Your task to perform on an android device: Show me popular videos on Youtube Image 0: 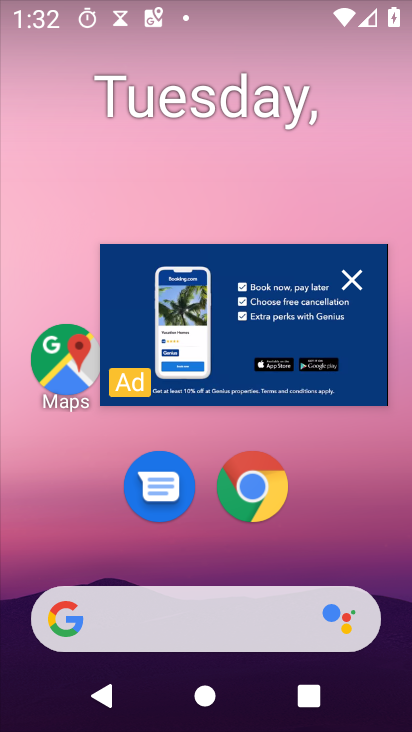
Step 0: click (351, 285)
Your task to perform on an android device: Show me popular videos on Youtube Image 1: 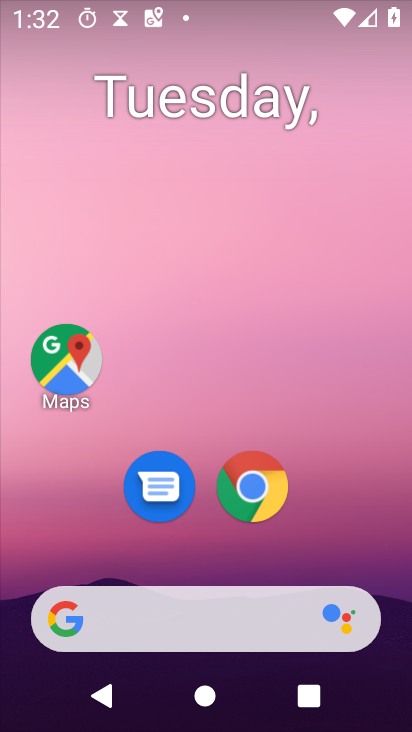
Step 1: drag from (362, 541) to (317, 161)
Your task to perform on an android device: Show me popular videos on Youtube Image 2: 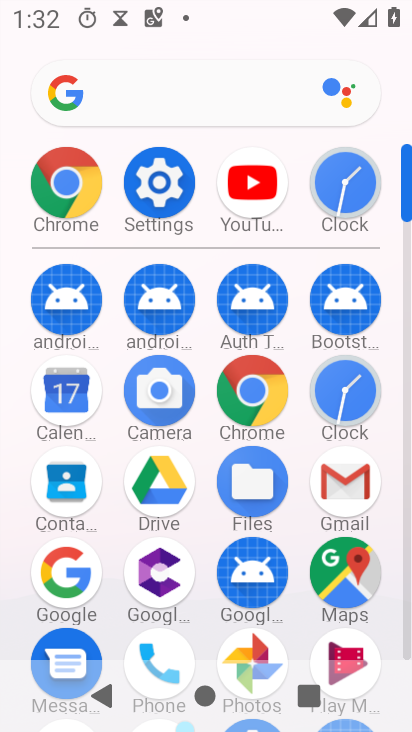
Step 2: click (251, 196)
Your task to perform on an android device: Show me popular videos on Youtube Image 3: 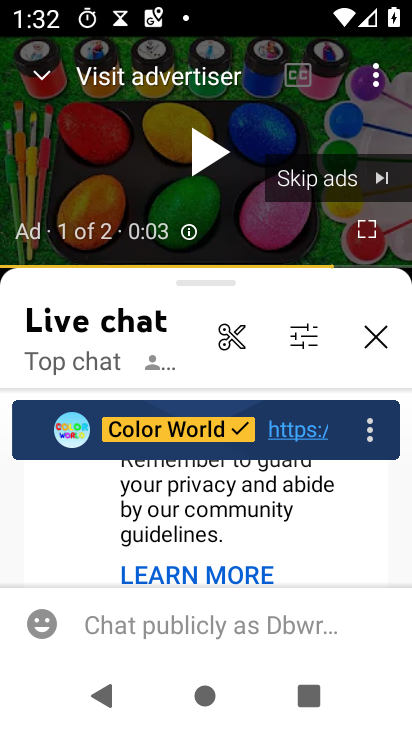
Step 3: click (97, 688)
Your task to perform on an android device: Show me popular videos on Youtube Image 4: 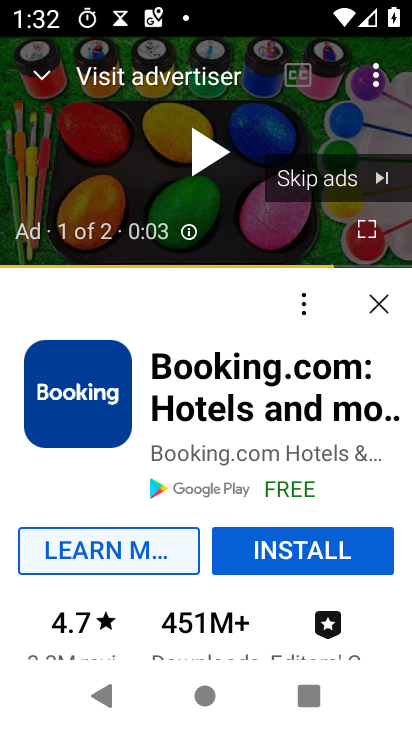
Step 4: press back button
Your task to perform on an android device: Show me popular videos on Youtube Image 5: 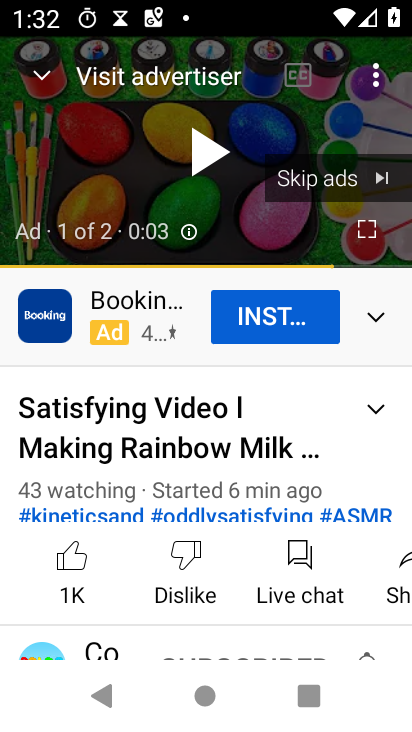
Step 5: press back button
Your task to perform on an android device: Show me popular videos on Youtube Image 6: 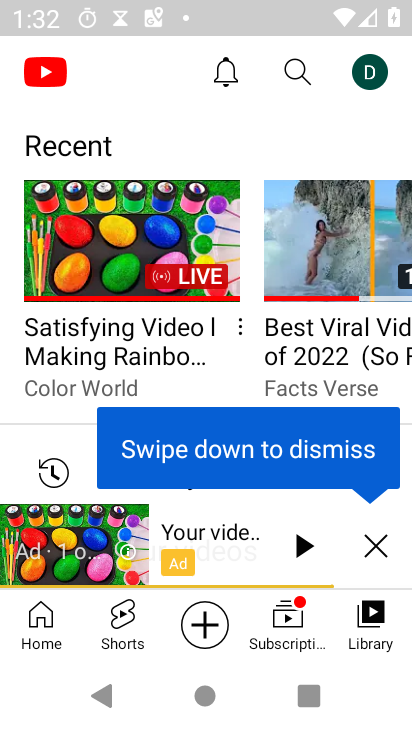
Step 6: click (49, 627)
Your task to perform on an android device: Show me popular videos on Youtube Image 7: 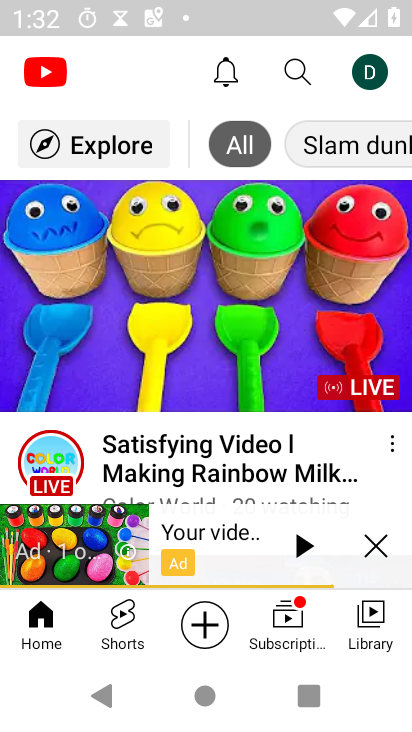
Step 7: click (381, 542)
Your task to perform on an android device: Show me popular videos on Youtube Image 8: 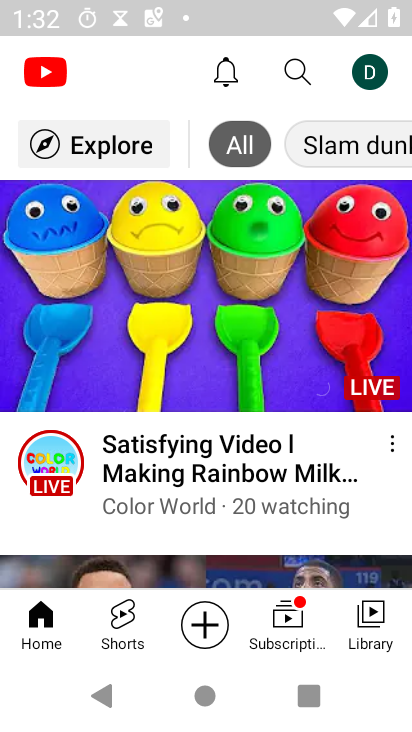
Step 8: task complete